Your task to perform on an android device: allow notifications from all sites in the chrome app Image 0: 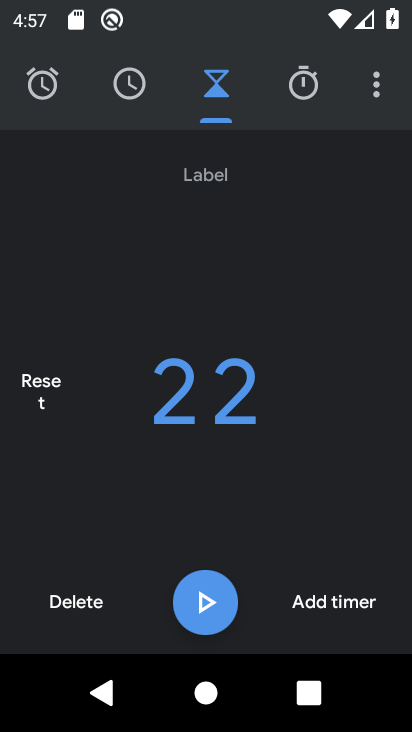
Step 0: press home button
Your task to perform on an android device: allow notifications from all sites in the chrome app Image 1: 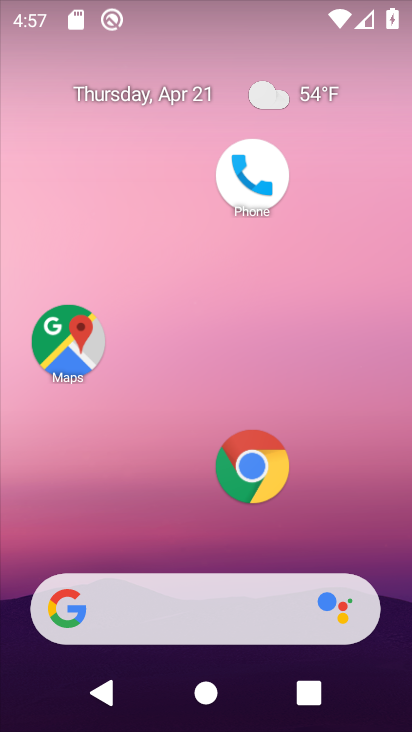
Step 1: click (279, 465)
Your task to perform on an android device: allow notifications from all sites in the chrome app Image 2: 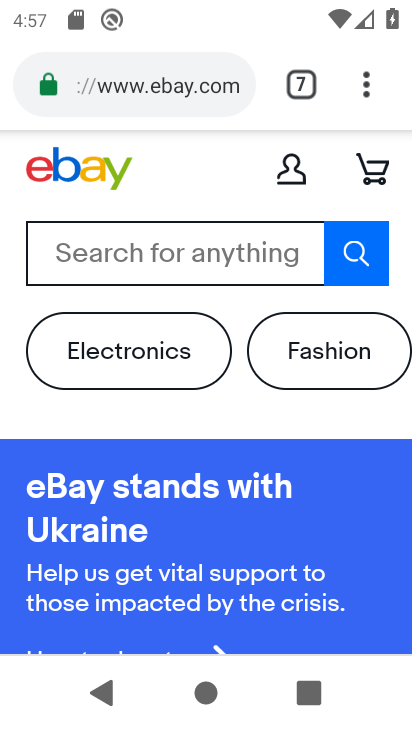
Step 2: click (361, 81)
Your task to perform on an android device: allow notifications from all sites in the chrome app Image 3: 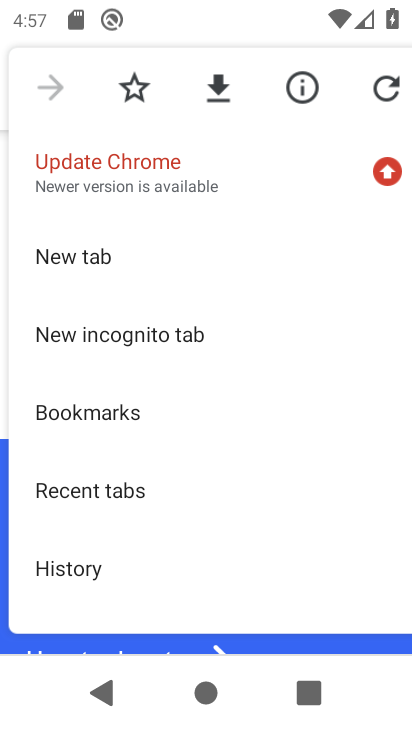
Step 3: drag from (204, 515) to (257, 39)
Your task to perform on an android device: allow notifications from all sites in the chrome app Image 4: 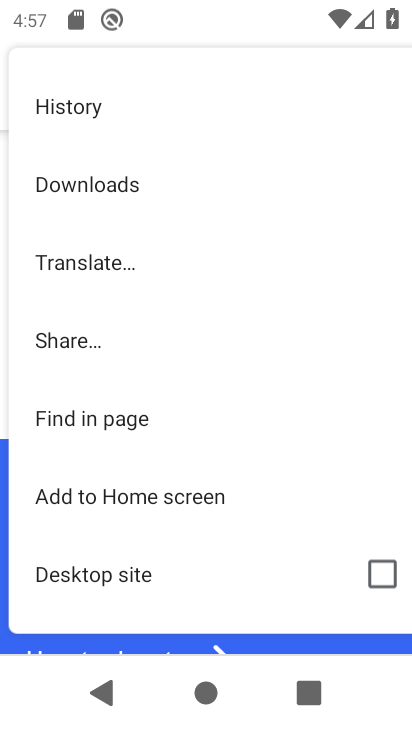
Step 4: drag from (213, 297) to (243, 66)
Your task to perform on an android device: allow notifications from all sites in the chrome app Image 5: 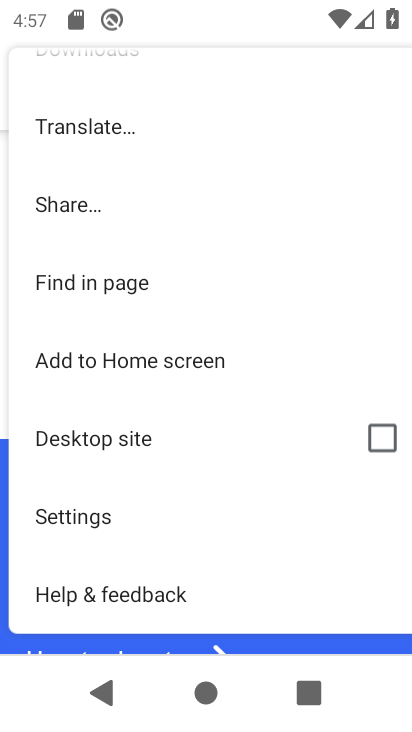
Step 5: click (149, 499)
Your task to perform on an android device: allow notifications from all sites in the chrome app Image 6: 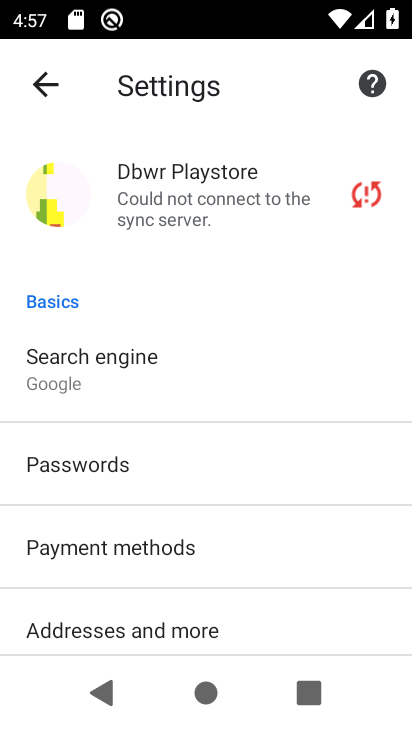
Step 6: drag from (267, 611) to (309, 116)
Your task to perform on an android device: allow notifications from all sites in the chrome app Image 7: 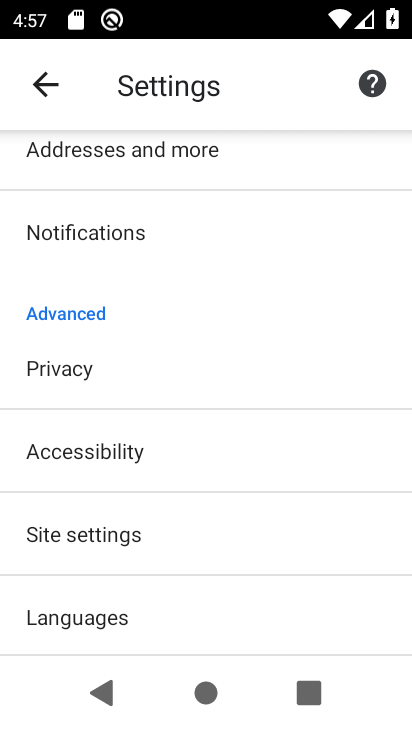
Step 7: click (225, 550)
Your task to perform on an android device: allow notifications from all sites in the chrome app Image 8: 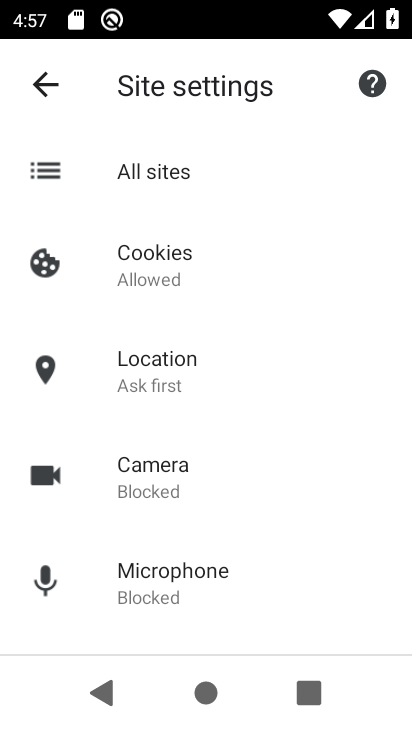
Step 8: click (225, 250)
Your task to perform on an android device: allow notifications from all sites in the chrome app Image 9: 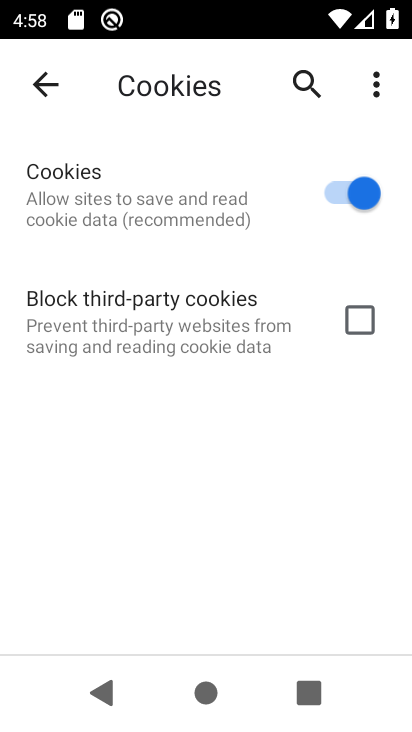
Step 9: click (332, 191)
Your task to perform on an android device: allow notifications from all sites in the chrome app Image 10: 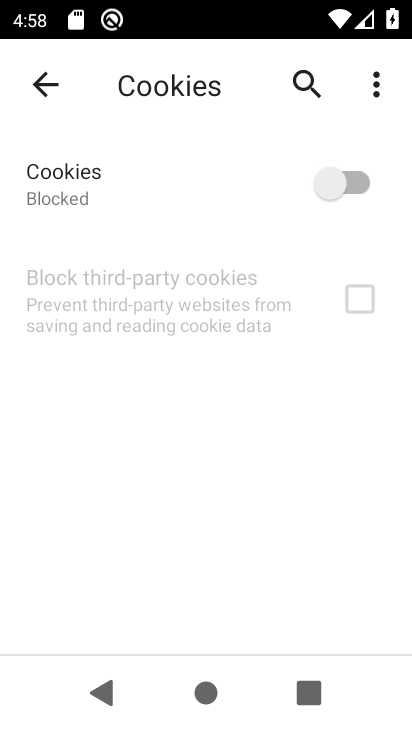
Step 10: click (332, 191)
Your task to perform on an android device: allow notifications from all sites in the chrome app Image 11: 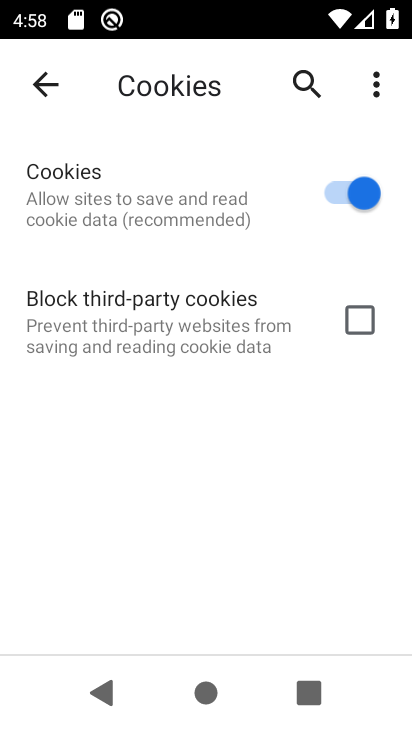
Step 11: task complete